Your task to perform on an android device: open app "Pandora - Music & Podcasts" Image 0: 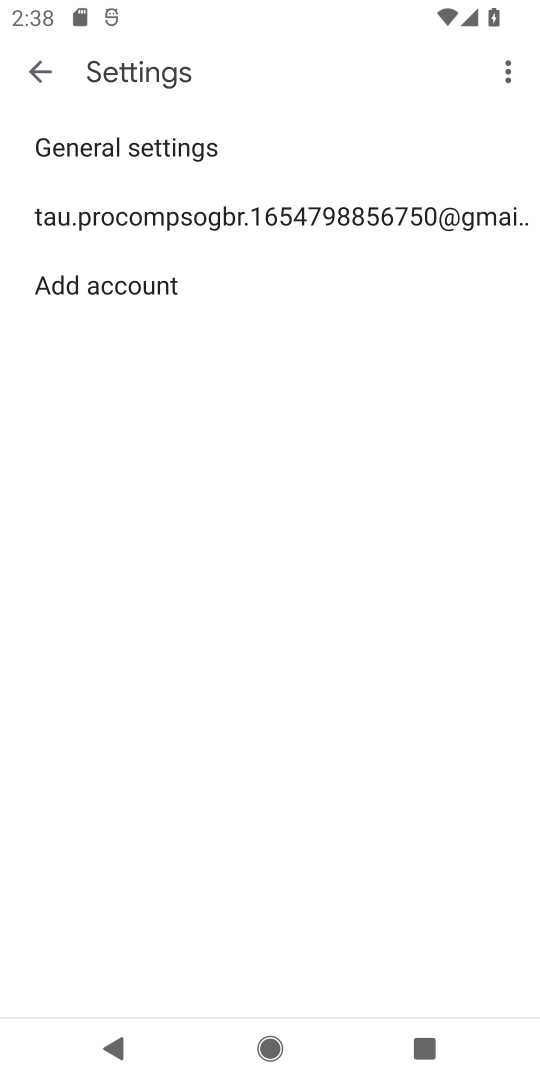
Step 0: press home button
Your task to perform on an android device: open app "Pandora - Music & Podcasts" Image 1: 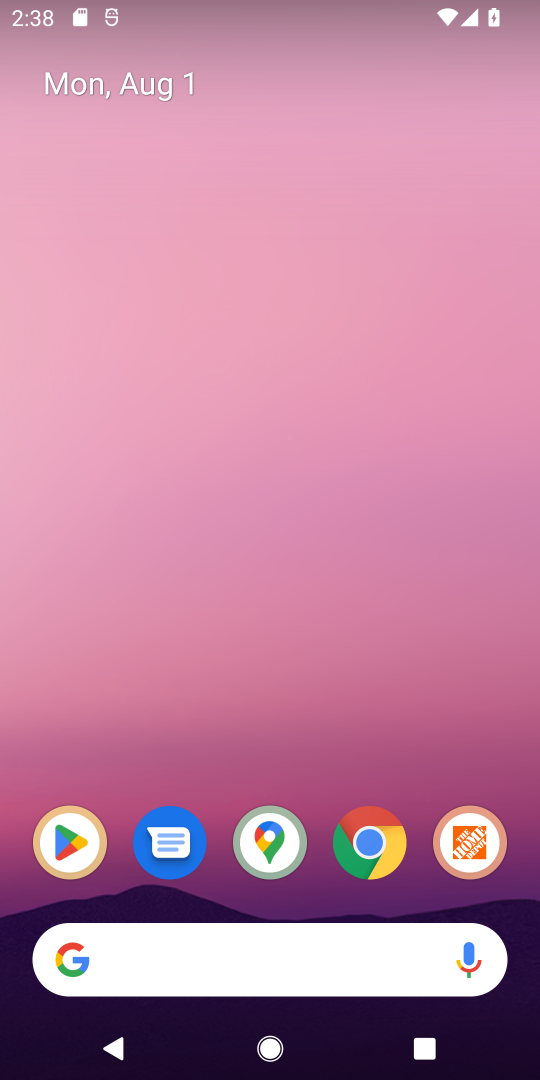
Step 1: click (53, 834)
Your task to perform on an android device: open app "Pandora - Music & Podcasts" Image 2: 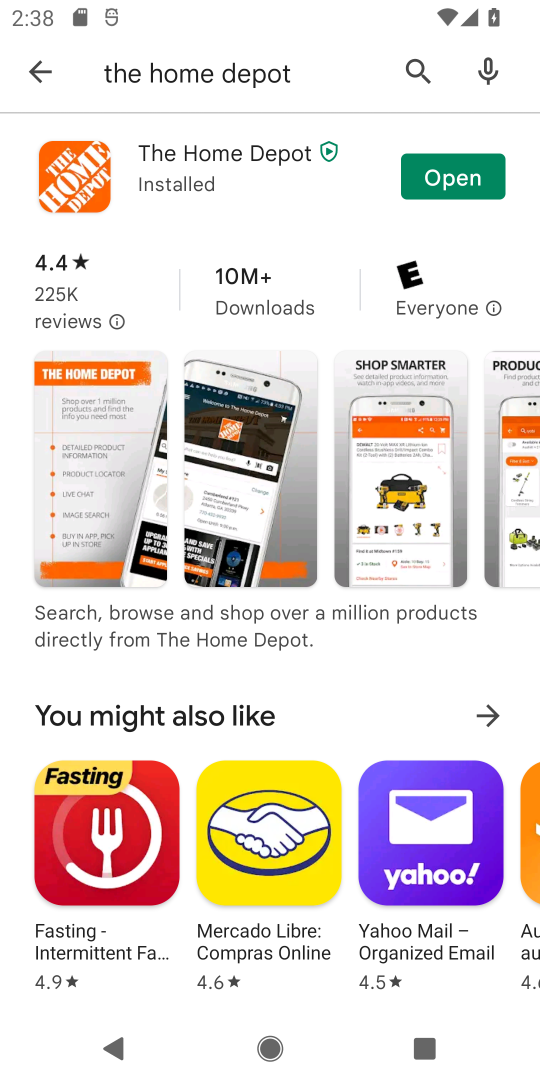
Step 2: click (181, 83)
Your task to perform on an android device: open app "Pandora - Music & Podcasts" Image 3: 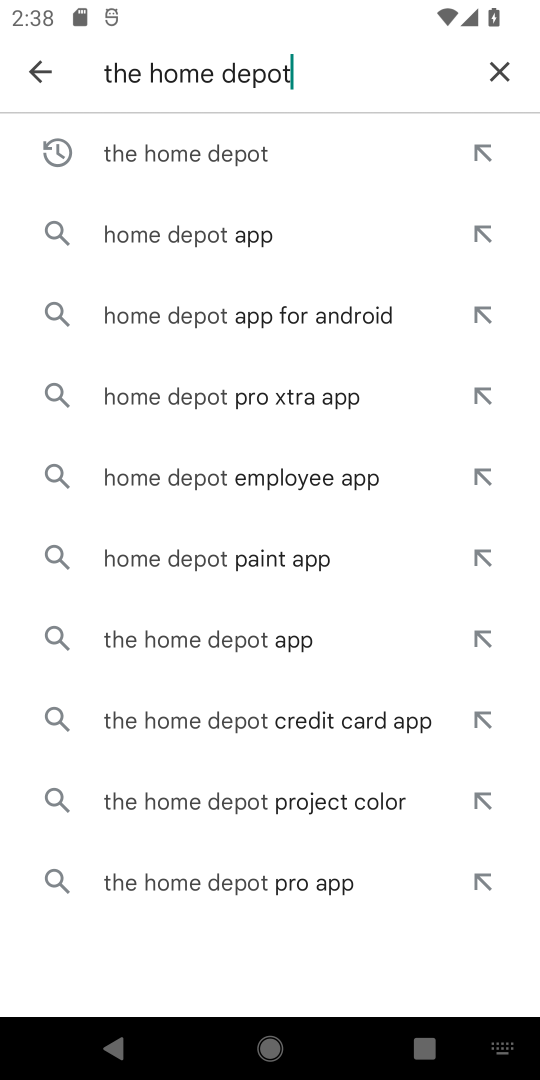
Step 3: click (503, 60)
Your task to perform on an android device: open app "Pandora - Music & Podcasts" Image 4: 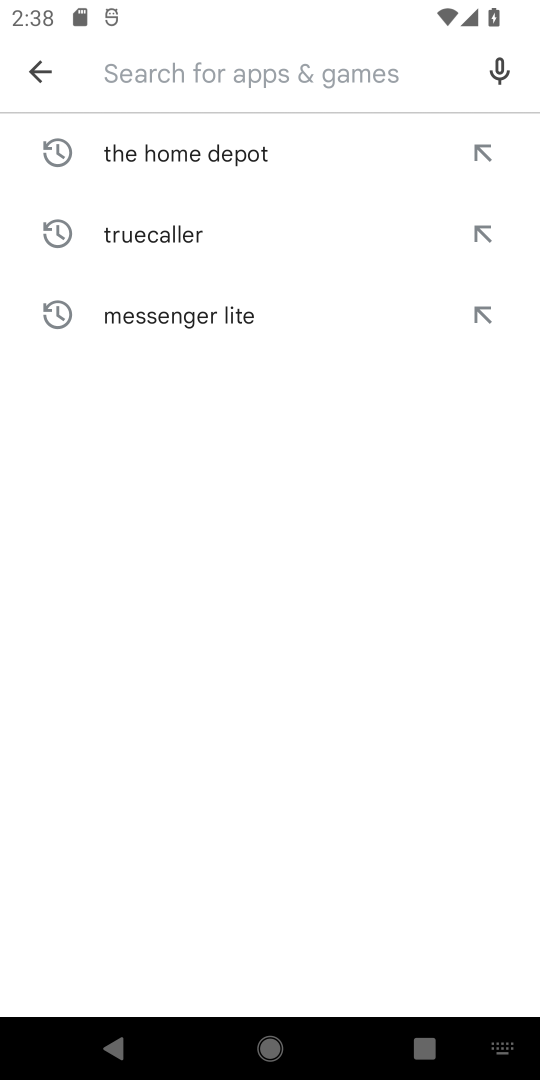
Step 4: type "pandora"
Your task to perform on an android device: open app "Pandora - Music & Podcasts" Image 5: 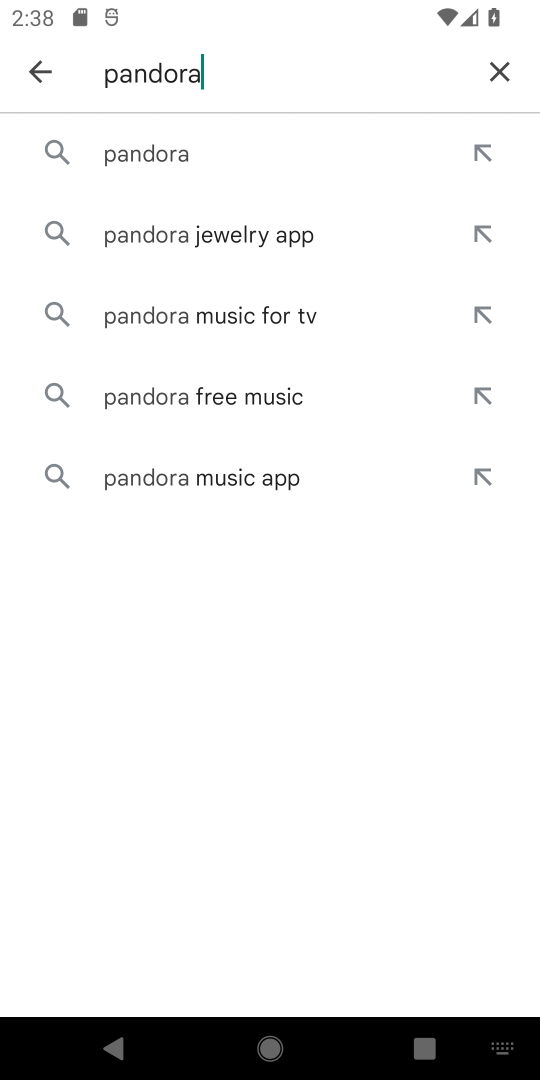
Step 5: click (232, 139)
Your task to perform on an android device: open app "Pandora - Music & Podcasts" Image 6: 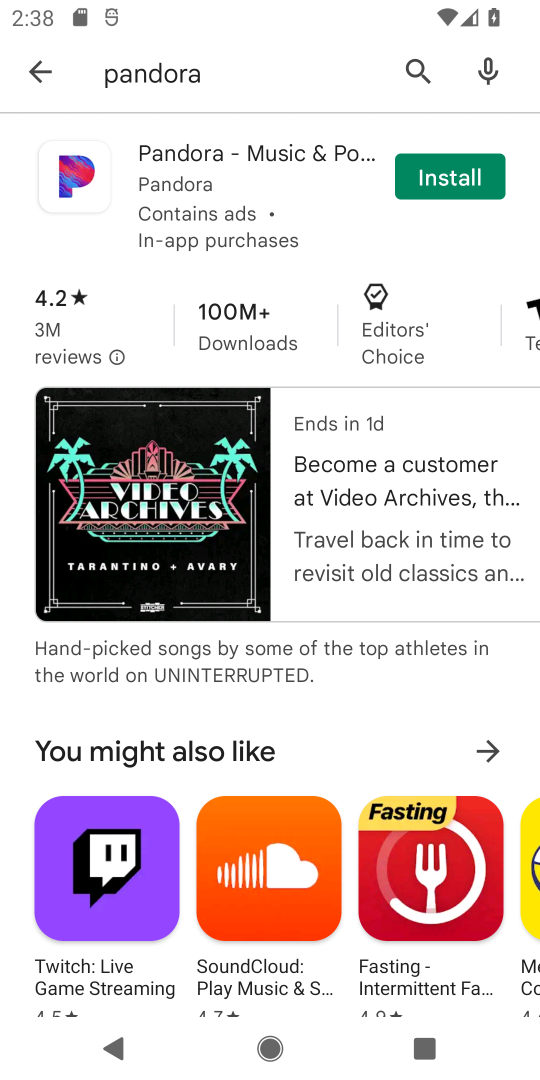
Step 6: task complete